Your task to perform on an android device: turn on airplane mode Image 0: 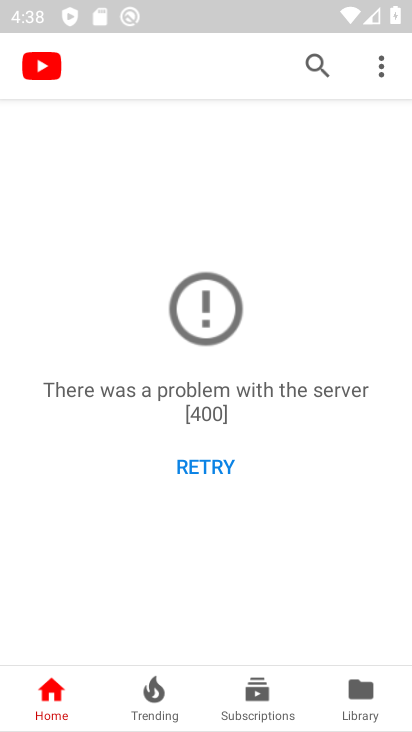
Step 0: press home button
Your task to perform on an android device: turn on airplane mode Image 1: 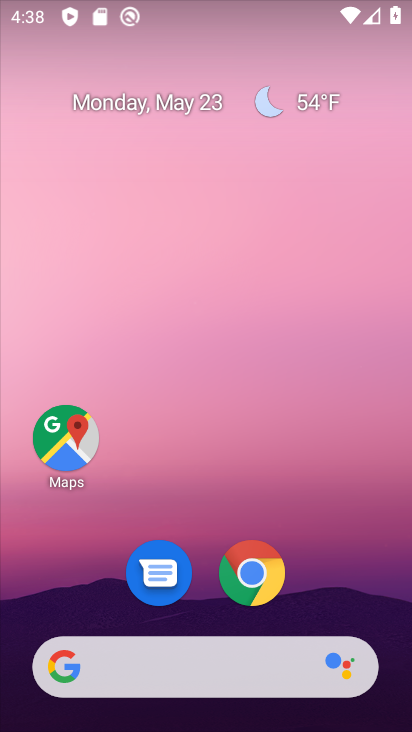
Step 1: drag from (178, 726) to (182, 274)
Your task to perform on an android device: turn on airplane mode Image 2: 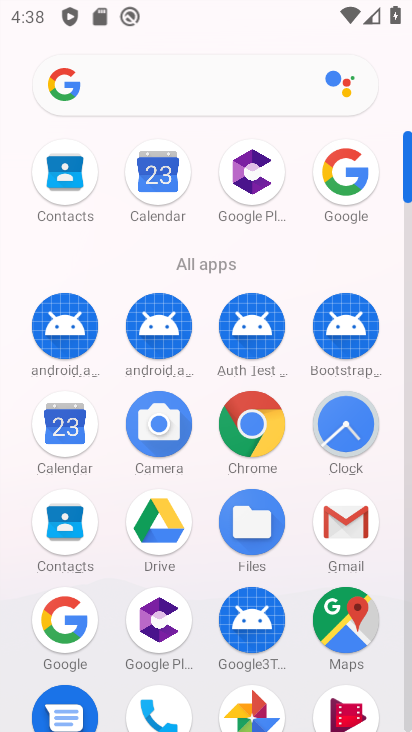
Step 2: drag from (204, 658) to (202, 335)
Your task to perform on an android device: turn on airplane mode Image 3: 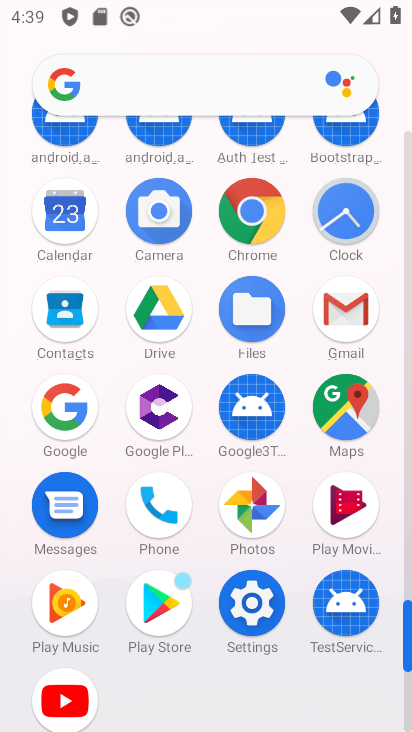
Step 3: click (246, 608)
Your task to perform on an android device: turn on airplane mode Image 4: 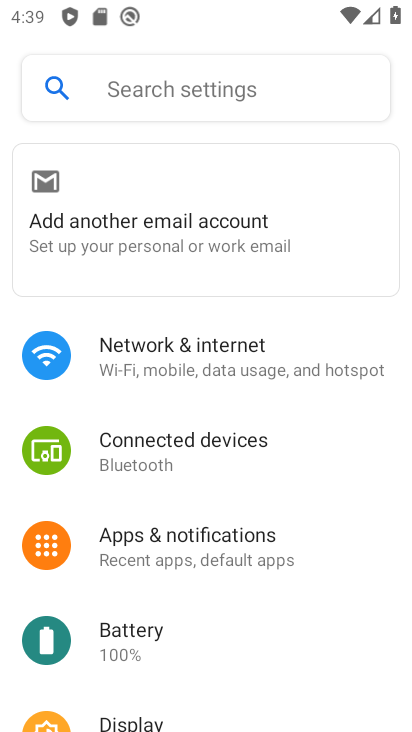
Step 4: click (159, 367)
Your task to perform on an android device: turn on airplane mode Image 5: 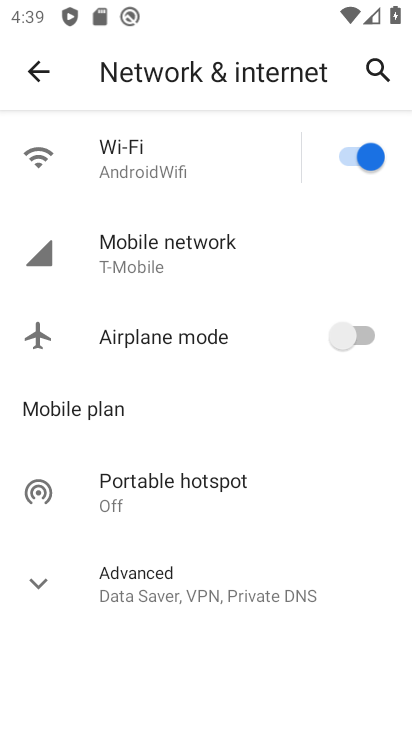
Step 5: click (364, 336)
Your task to perform on an android device: turn on airplane mode Image 6: 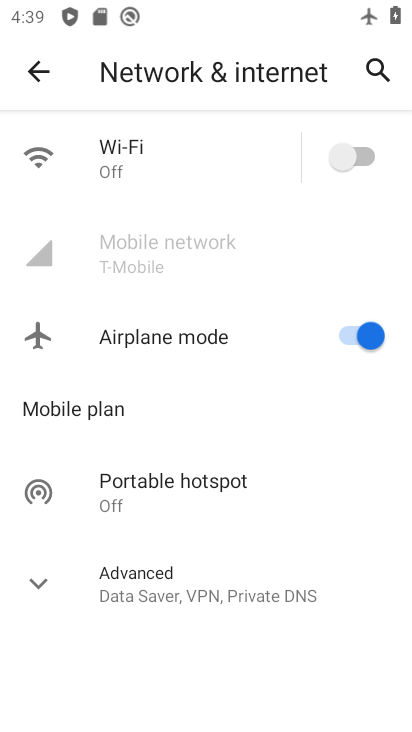
Step 6: task complete